Your task to perform on an android device: open app "Google Translate" (install if not already installed) Image 0: 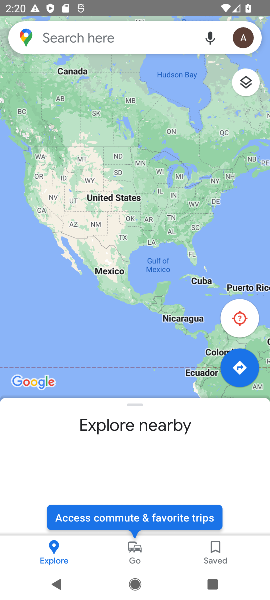
Step 0: press home button
Your task to perform on an android device: open app "Google Translate" (install if not already installed) Image 1: 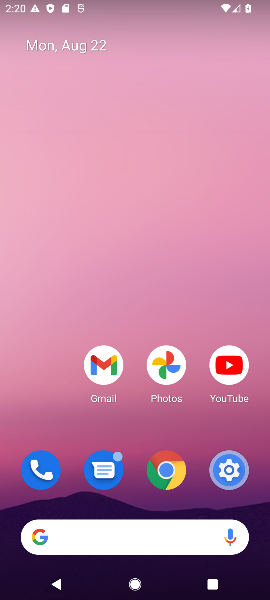
Step 1: drag from (130, 557) to (147, 183)
Your task to perform on an android device: open app "Google Translate" (install if not already installed) Image 2: 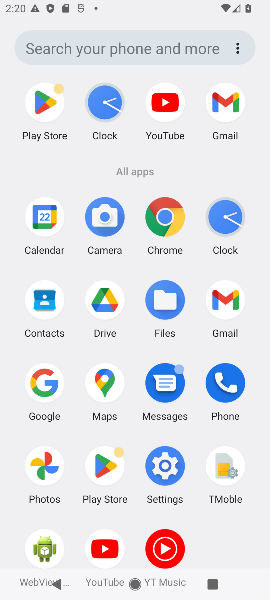
Step 2: click (48, 93)
Your task to perform on an android device: open app "Google Translate" (install if not already installed) Image 3: 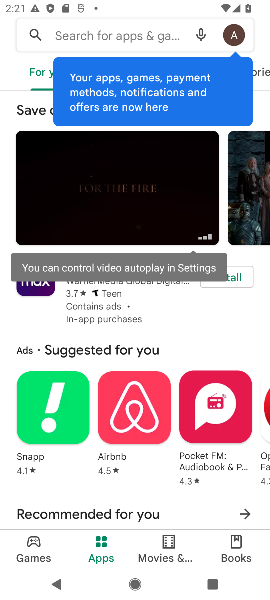
Step 3: click (147, 43)
Your task to perform on an android device: open app "Google Translate" (install if not already installed) Image 4: 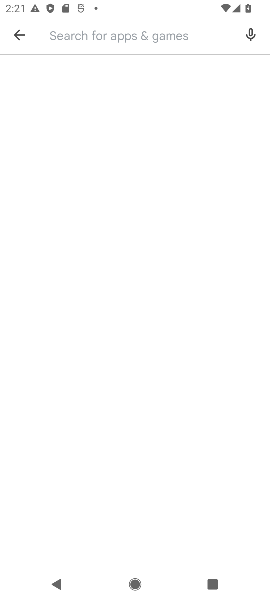
Step 4: click (160, 34)
Your task to perform on an android device: open app "Google Translate" (install if not already installed) Image 5: 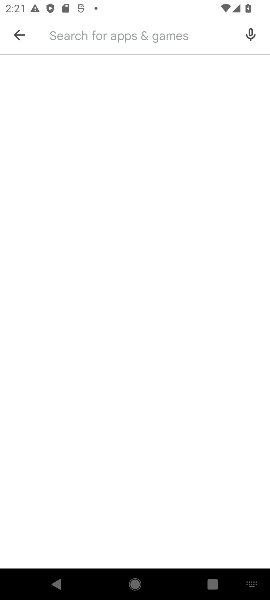
Step 5: type "Google Translate "
Your task to perform on an android device: open app "Google Translate" (install if not already installed) Image 6: 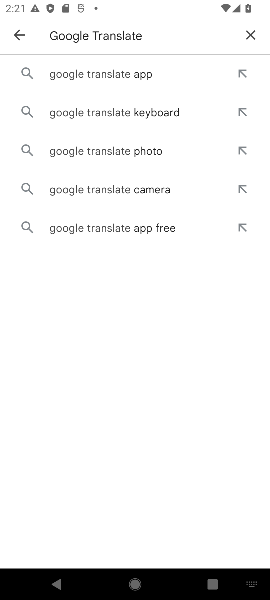
Step 6: click (118, 80)
Your task to perform on an android device: open app "Google Translate" (install if not already installed) Image 7: 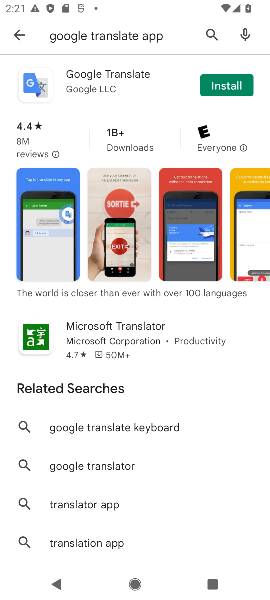
Step 7: click (228, 86)
Your task to perform on an android device: open app "Google Translate" (install if not already installed) Image 8: 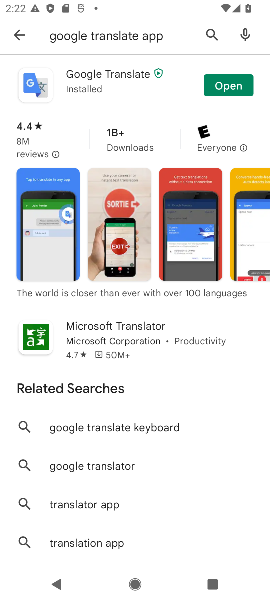
Step 8: click (223, 73)
Your task to perform on an android device: open app "Google Translate" (install if not already installed) Image 9: 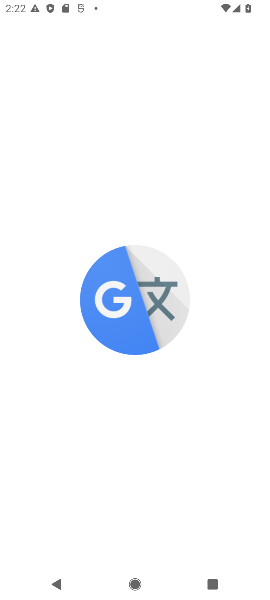
Step 9: task complete